Your task to perform on an android device: Go to internet settings Image 0: 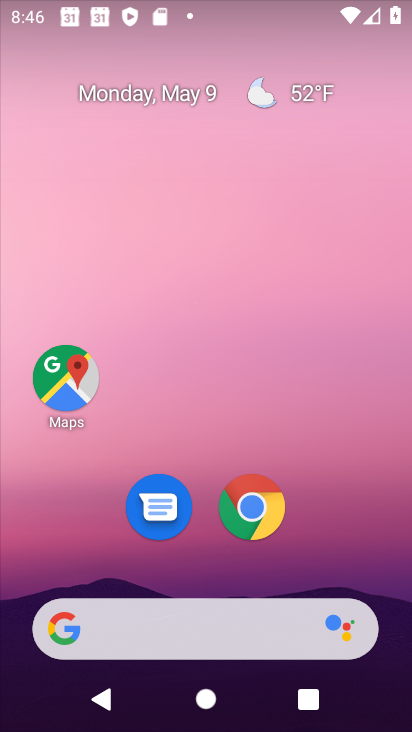
Step 0: drag from (333, 545) to (233, 122)
Your task to perform on an android device: Go to internet settings Image 1: 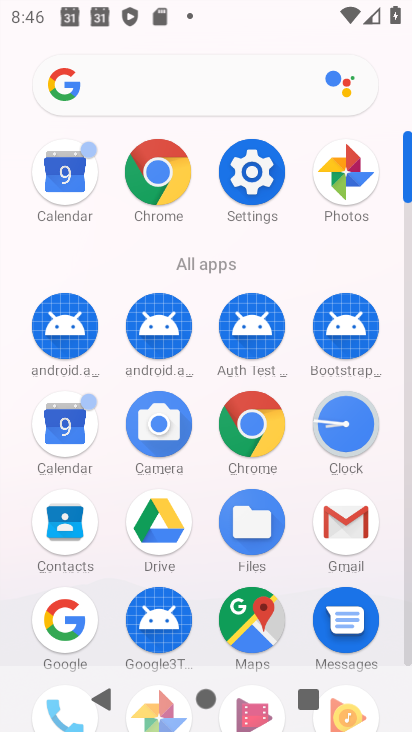
Step 1: click (255, 173)
Your task to perform on an android device: Go to internet settings Image 2: 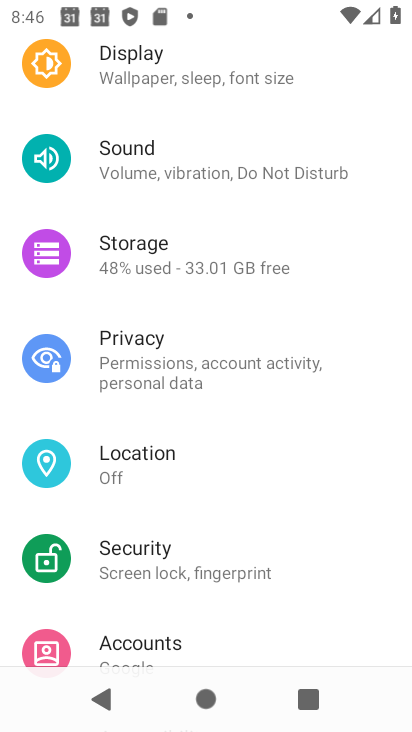
Step 2: drag from (239, 299) to (230, 433)
Your task to perform on an android device: Go to internet settings Image 3: 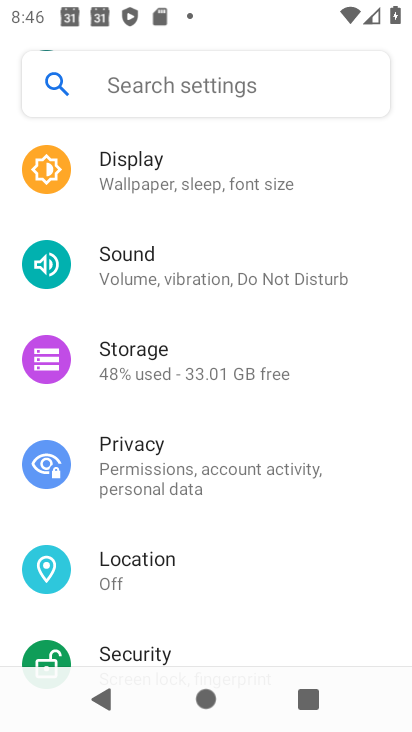
Step 3: drag from (222, 304) to (249, 388)
Your task to perform on an android device: Go to internet settings Image 4: 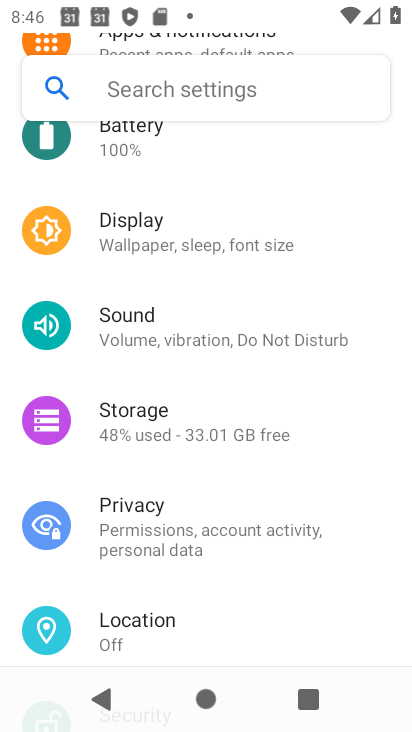
Step 4: drag from (240, 275) to (276, 411)
Your task to perform on an android device: Go to internet settings Image 5: 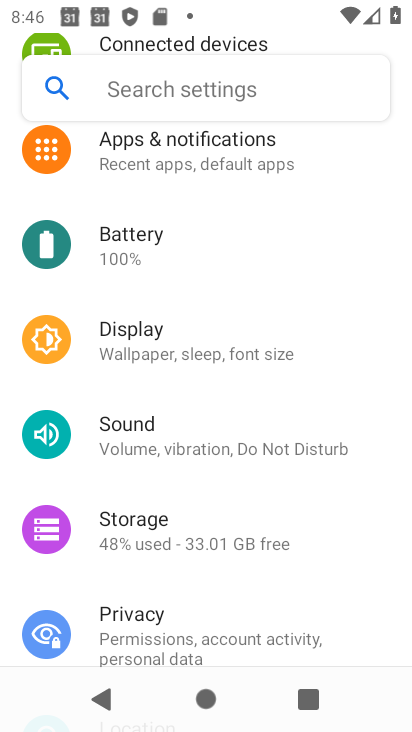
Step 5: drag from (230, 269) to (256, 390)
Your task to perform on an android device: Go to internet settings Image 6: 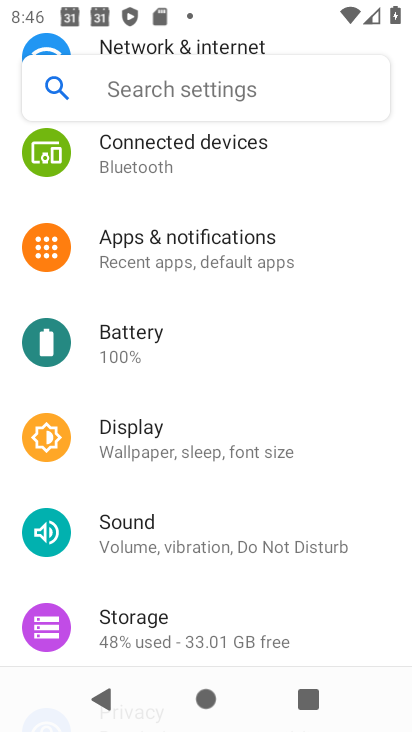
Step 6: drag from (260, 205) to (279, 335)
Your task to perform on an android device: Go to internet settings Image 7: 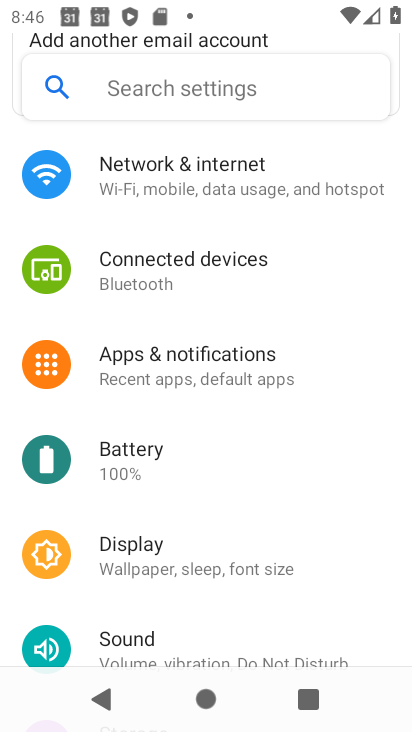
Step 7: click (202, 160)
Your task to perform on an android device: Go to internet settings Image 8: 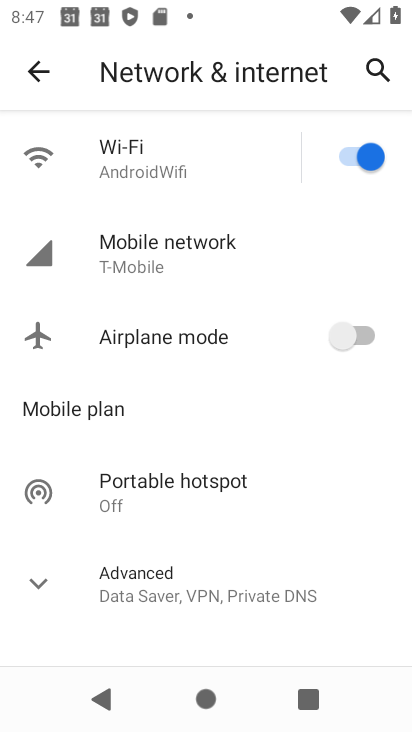
Step 8: click (122, 152)
Your task to perform on an android device: Go to internet settings Image 9: 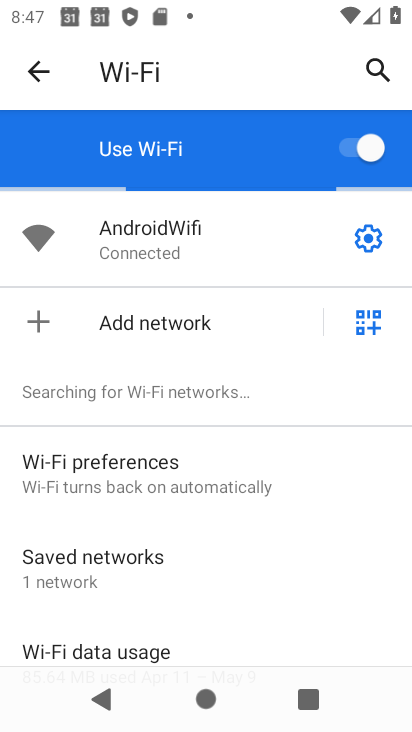
Step 9: task complete